Your task to perform on an android device: Go to calendar. Show me events next week Image 0: 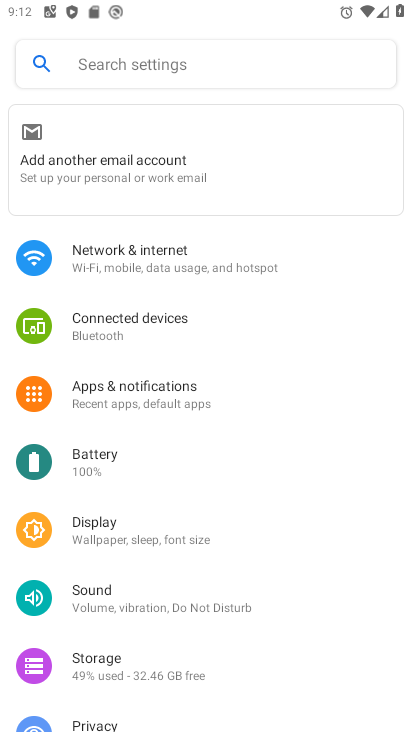
Step 0: press home button
Your task to perform on an android device: Go to calendar. Show me events next week Image 1: 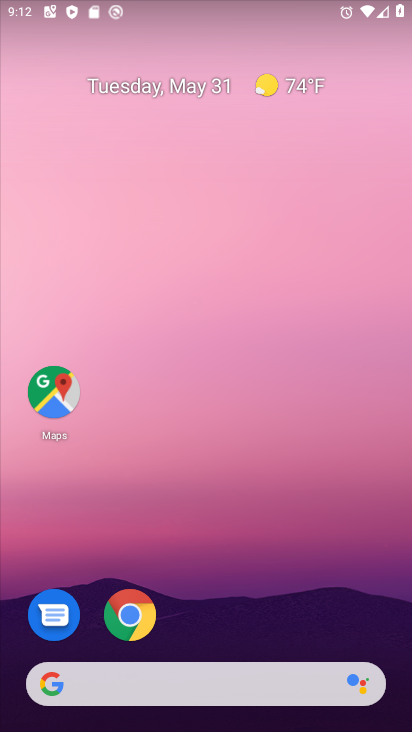
Step 1: drag from (243, 627) to (215, 199)
Your task to perform on an android device: Go to calendar. Show me events next week Image 2: 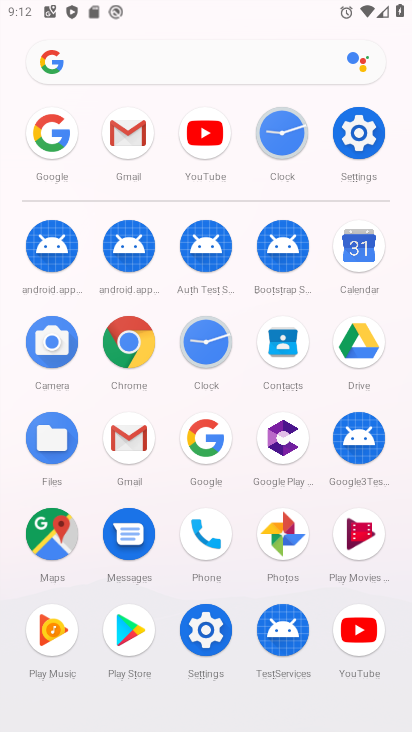
Step 2: click (349, 246)
Your task to perform on an android device: Go to calendar. Show me events next week Image 3: 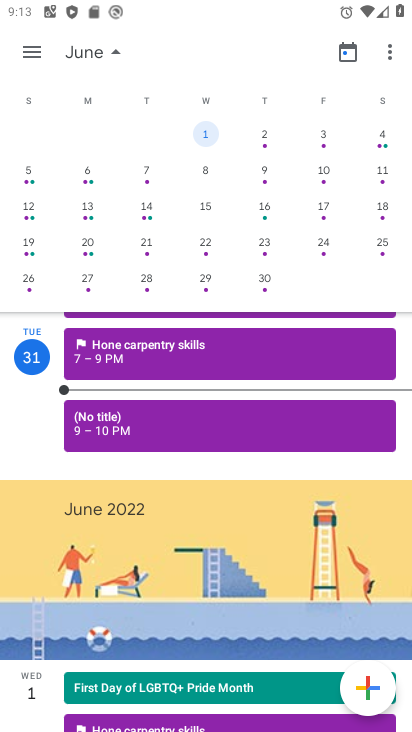
Step 3: click (31, 174)
Your task to perform on an android device: Go to calendar. Show me events next week Image 4: 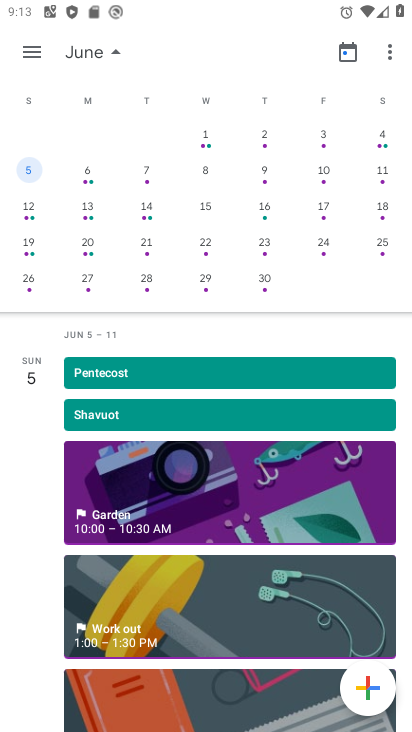
Step 4: click (34, 175)
Your task to perform on an android device: Go to calendar. Show me events next week Image 5: 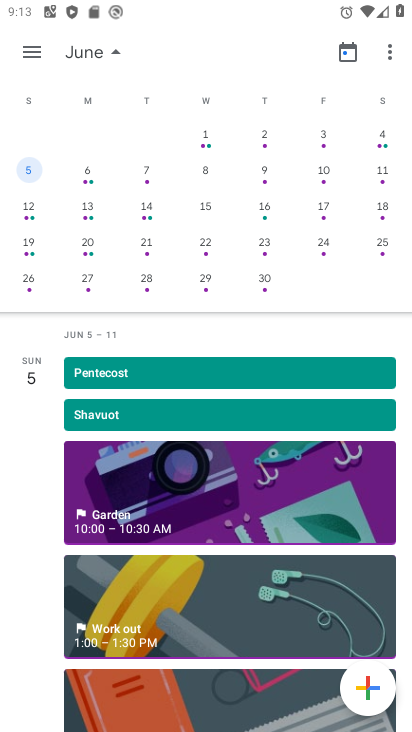
Step 5: click (73, 184)
Your task to perform on an android device: Go to calendar. Show me events next week Image 6: 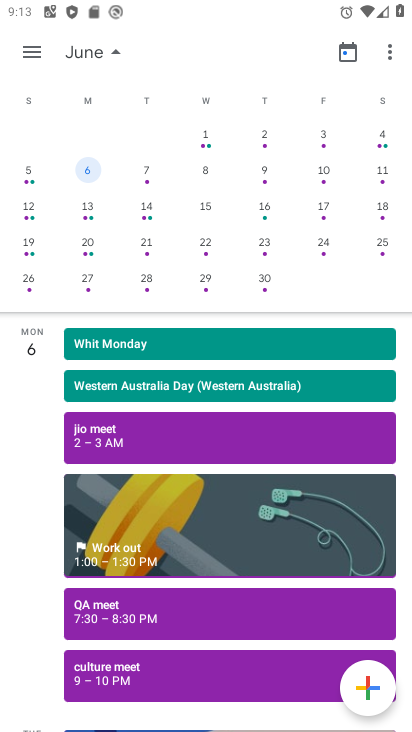
Step 6: task complete